Your task to perform on an android device: toggle translation in the chrome app Image 0: 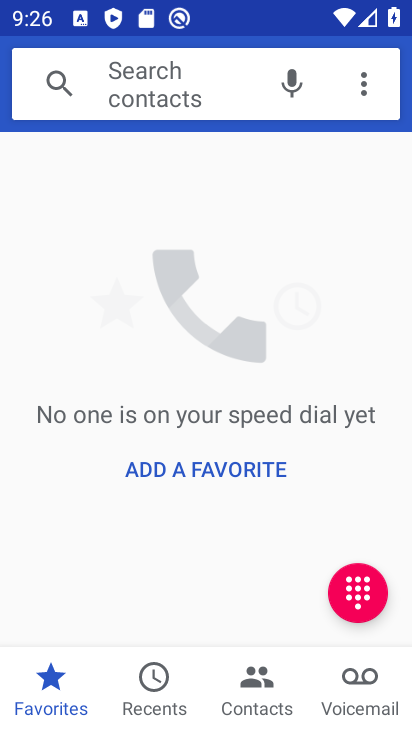
Step 0: press home button
Your task to perform on an android device: toggle translation in the chrome app Image 1: 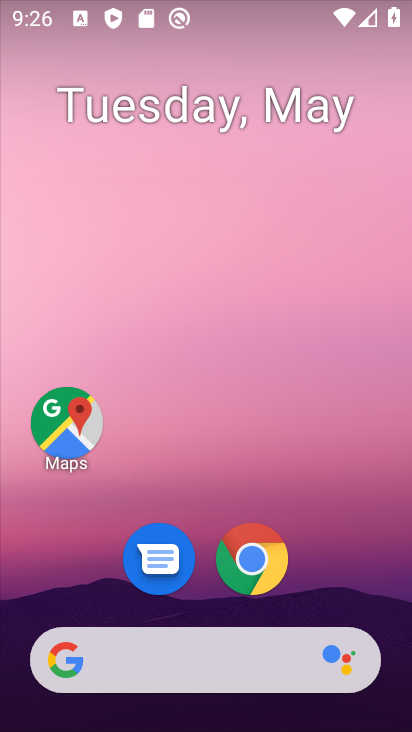
Step 1: click (257, 592)
Your task to perform on an android device: toggle translation in the chrome app Image 2: 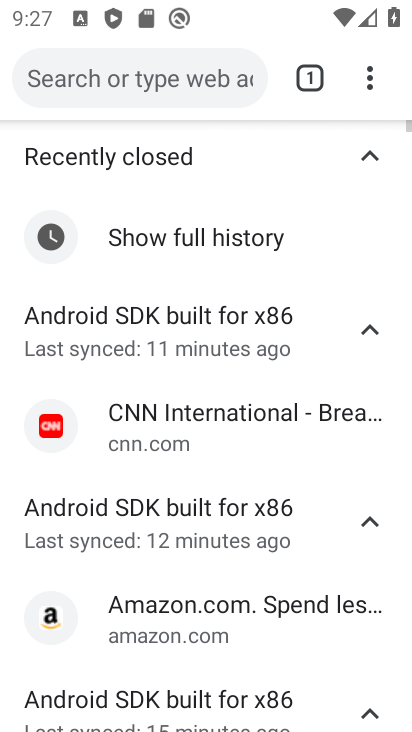
Step 2: drag from (363, 83) to (129, 606)
Your task to perform on an android device: toggle translation in the chrome app Image 3: 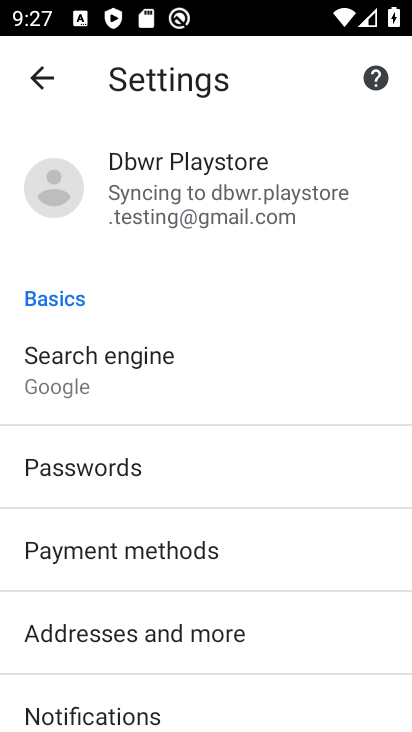
Step 3: drag from (168, 614) to (213, 121)
Your task to perform on an android device: toggle translation in the chrome app Image 4: 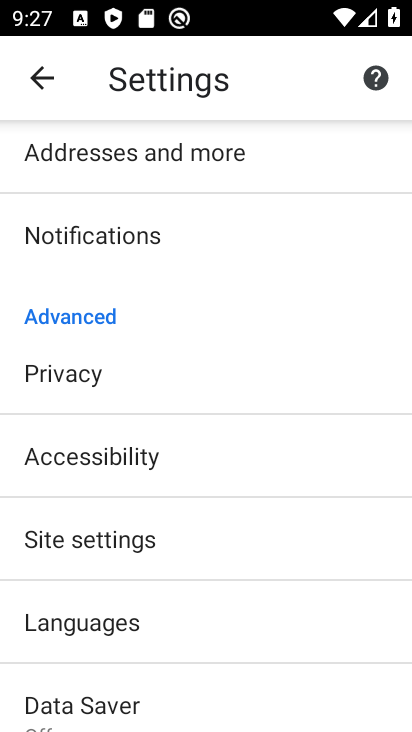
Step 4: click (150, 632)
Your task to perform on an android device: toggle translation in the chrome app Image 5: 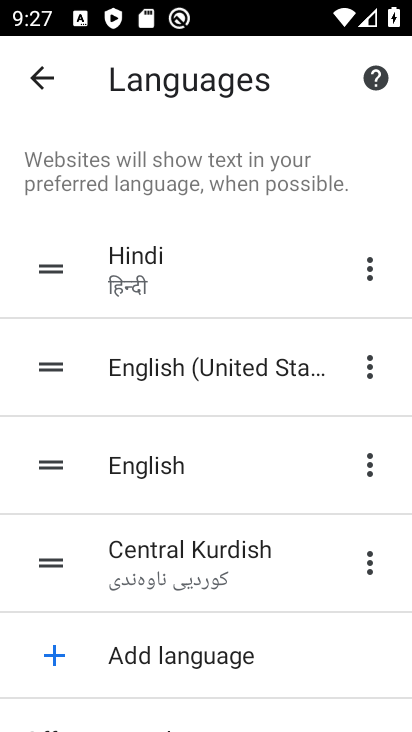
Step 5: drag from (151, 609) to (216, 99)
Your task to perform on an android device: toggle translation in the chrome app Image 6: 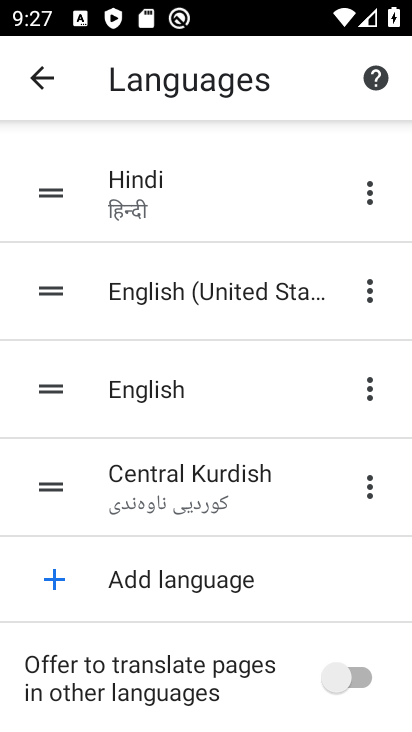
Step 6: click (338, 678)
Your task to perform on an android device: toggle translation in the chrome app Image 7: 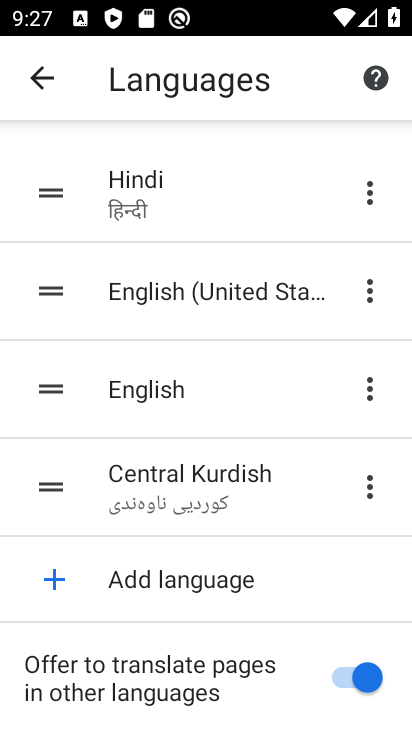
Step 7: task complete